Your task to perform on an android device: Go to accessibility settings Image 0: 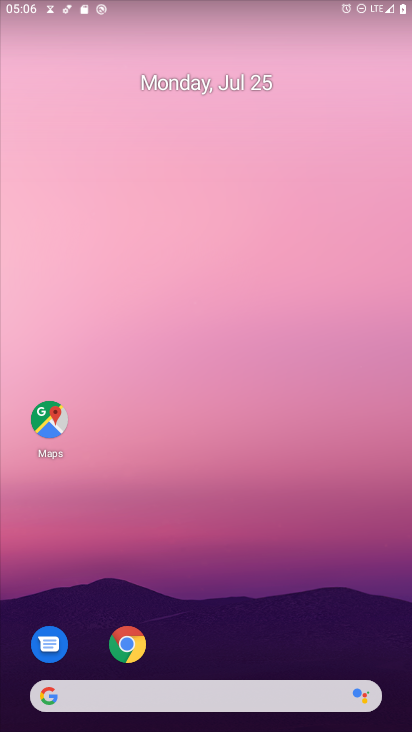
Step 0: press home button
Your task to perform on an android device: Go to accessibility settings Image 1: 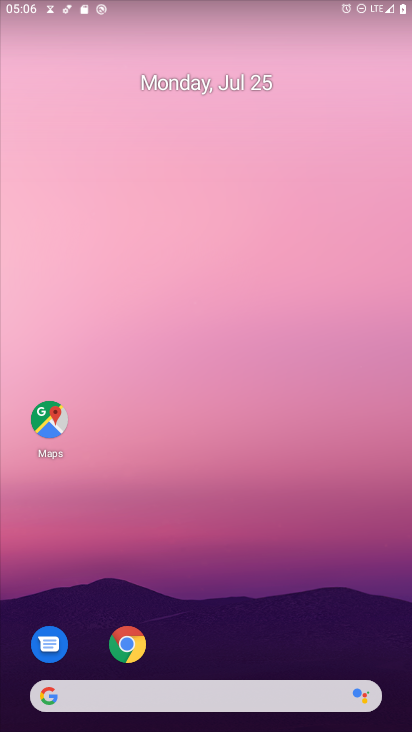
Step 1: drag from (262, 626) to (220, 140)
Your task to perform on an android device: Go to accessibility settings Image 2: 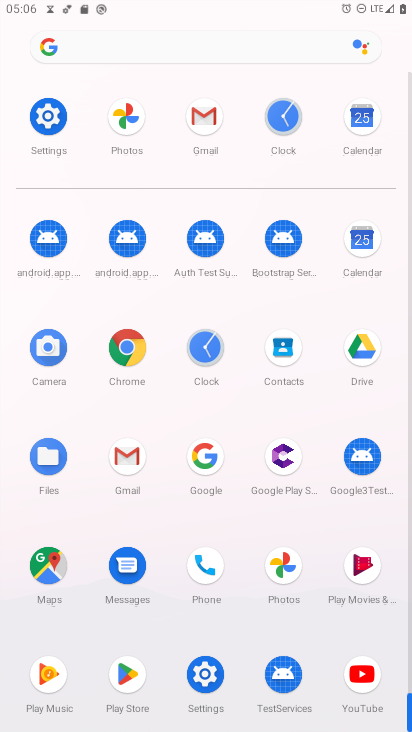
Step 2: click (47, 113)
Your task to perform on an android device: Go to accessibility settings Image 3: 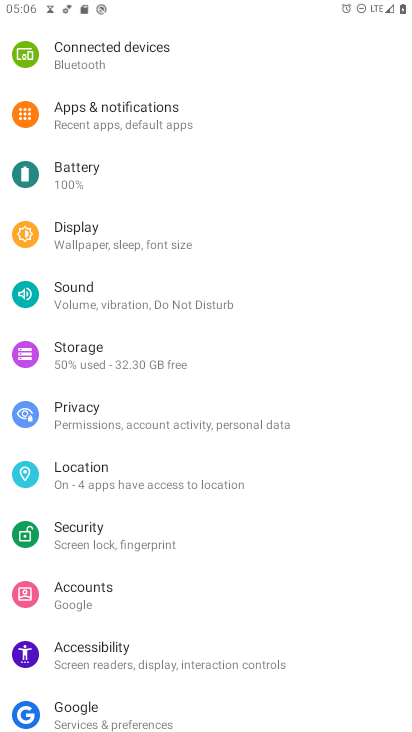
Step 3: click (93, 639)
Your task to perform on an android device: Go to accessibility settings Image 4: 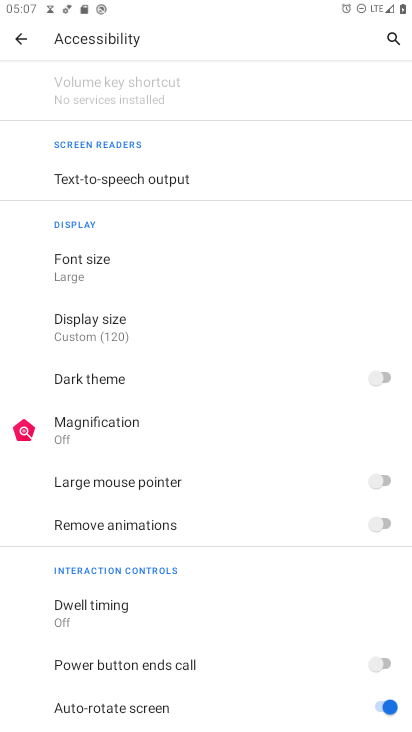
Step 4: task complete